Your task to perform on an android device: open app "Pluto TV - Live TV and Movies" (install if not already installed) Image 0: 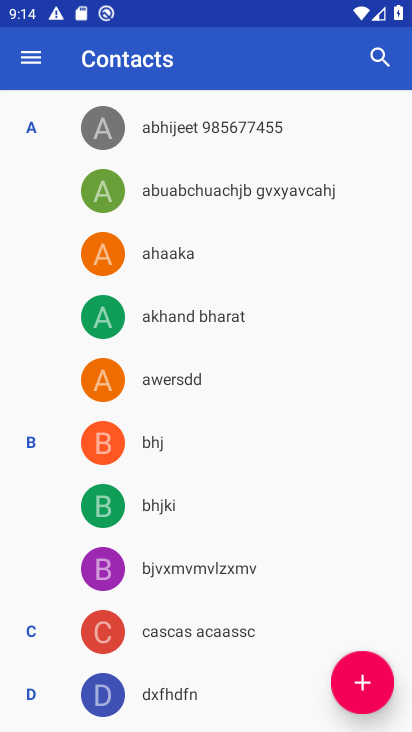
Step 0: press home button
Your task to perform on an android device: open app "Pluto TV - Live TV and Movies" (install if not already installed) Image 1: 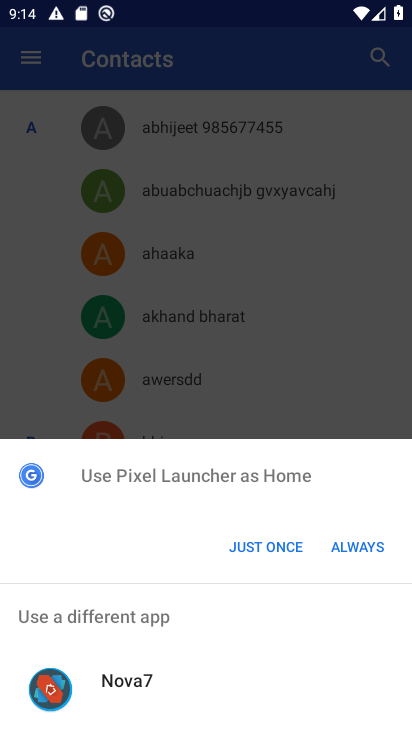
Step 1: click (285, 546)
Your task to perform on an android device: open app "Pluto TV - Live TV and Movies" (install if not already installed) Image 2: 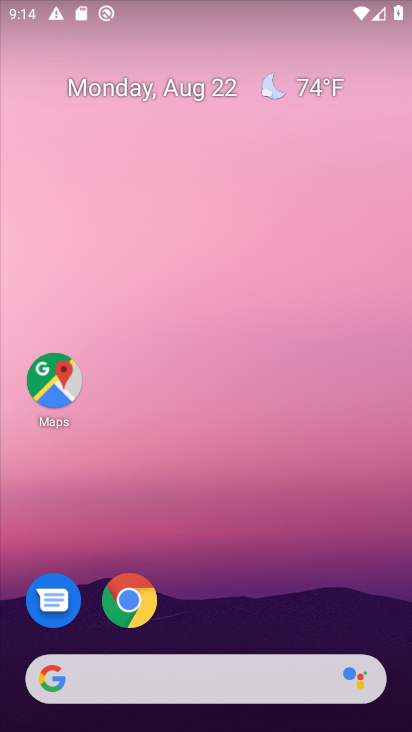
Step 2: drag from (212, 588) to (174, 136)
Your task to perform on an android device: open app "Pluto TV - Live TV and Movies" (install if not already installed) Image 3: 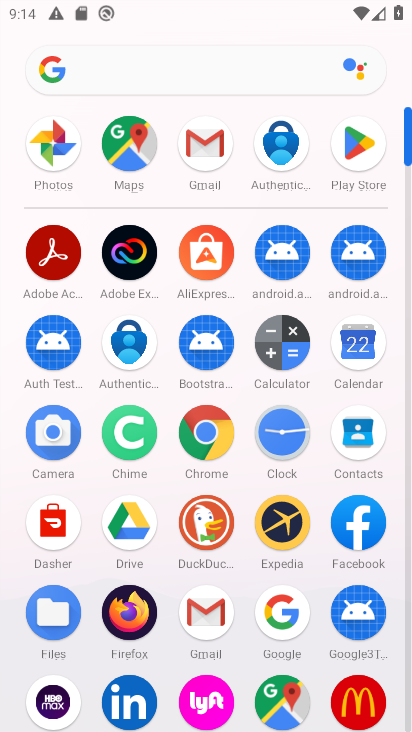
Step 3: click (357, 140)
Your task to perform on an android device: open app "Pluto TV - Live TV and Movies" (install if not already installed) Image 4: 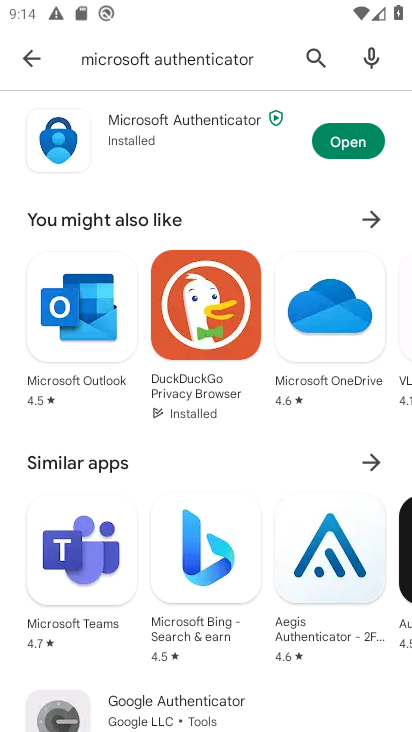
Step 4: click (318, 54)
Your task to perform on an android device: open app "Pluto TV - Live TV and Movies" (install if not already installed) Image 5: 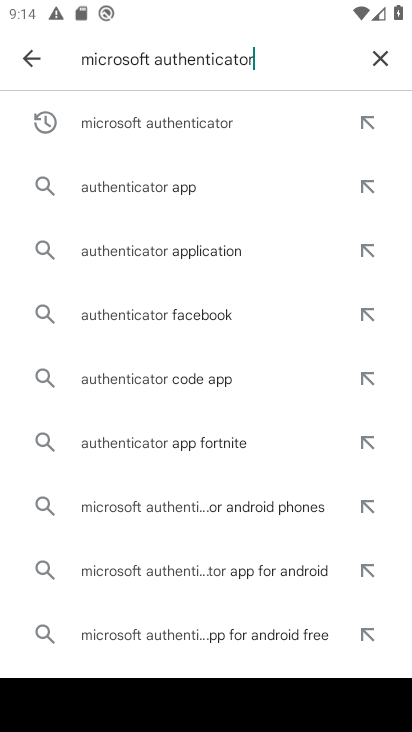
Step 5: click (379, 58)
Your task to perform on an android device: open app "Pluto TV - Live TV and Movies" (install if not already installed) Image 6: 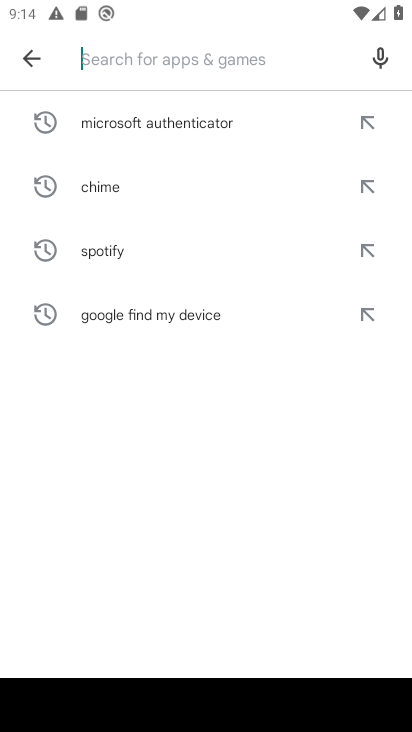
Step 6: type "Pluto TV - Live TV and Movies"
Your task to perform on an android device: open app "Pluto TV - Live TV and Movies" (install if not already installed) Image 7: 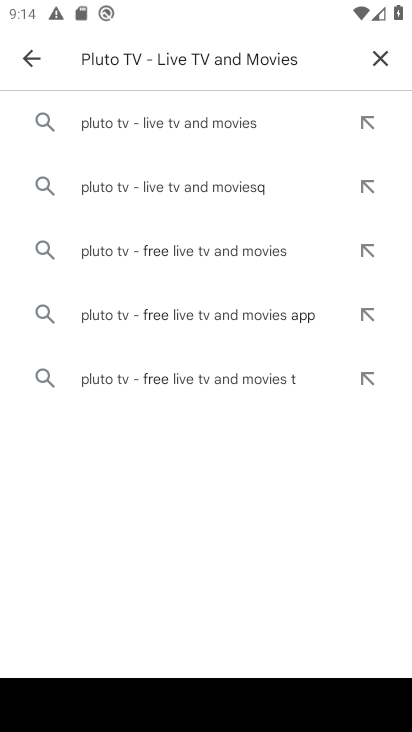
Step 7: click (235, 108)
Your task to perform on an android device: open app "Pluto TV - Live TV and Movies" (install if not already installed) Image 8: 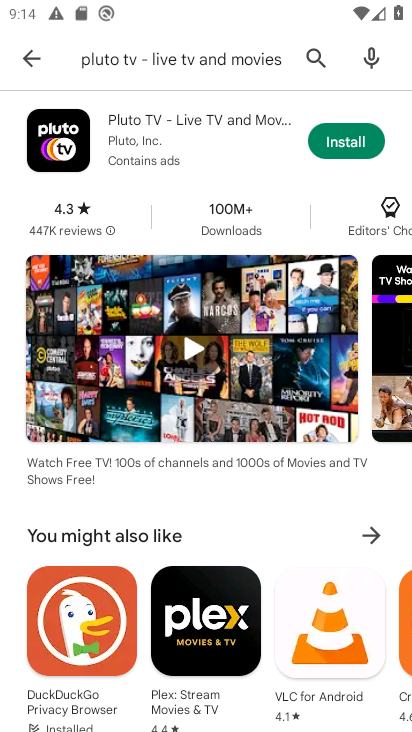
Step 8: click (343, 145)
Your task to perform on an android device: open app "Pluto TV - Live TV and Movies" (install if not already installed) Image 9: 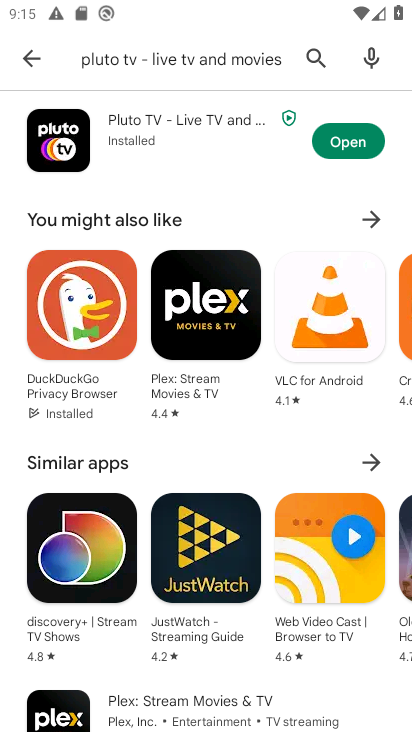
Step 9: click (343, 145)
Your task to perform on an android device: open app "Pluto TV - Live TV and Movies" (install if not already installed) Image 10: 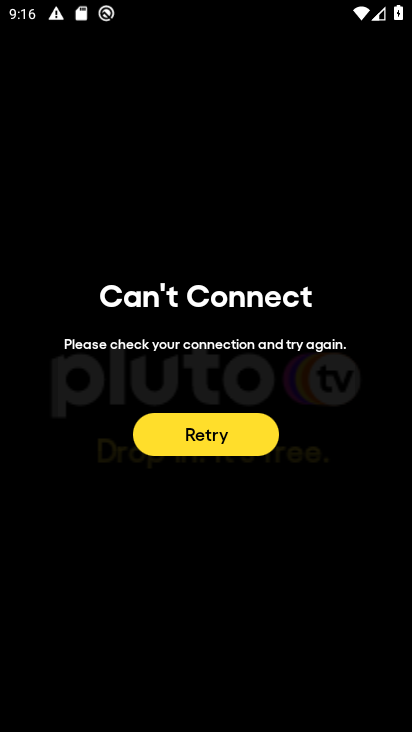
Step 10: task complete